Your task to perform on an android device: Open calendar and show me the third week of next month Image 0: 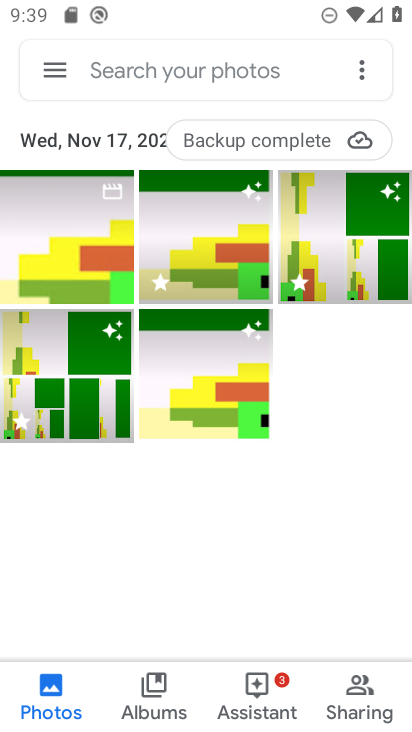
Step 0: press home button
Your task to perform on an android device: Open calendar and show me the third week of next month Image 1: 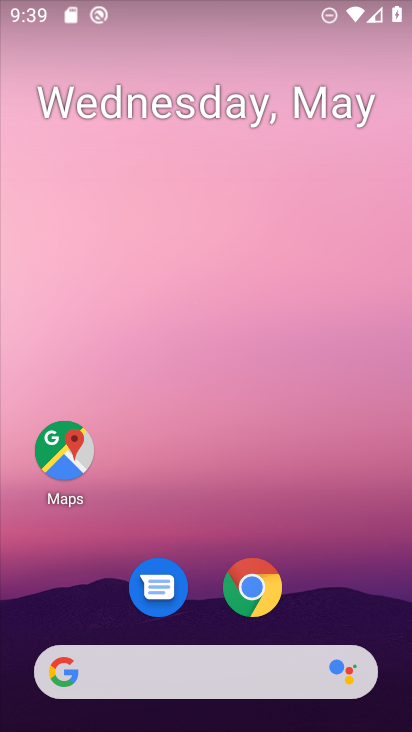
Step 1: drag from (189, 727) to (197, 141)
Your task to perform on an android device: Open calendar and show me the third week of next month Image 2: 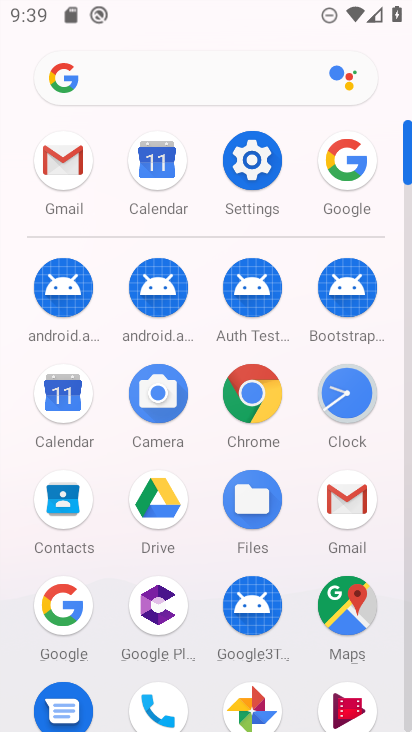
Step 2: click (56, 397)
Your task to perform on an android device: Open calendar and show me the third week of next month Image 3: 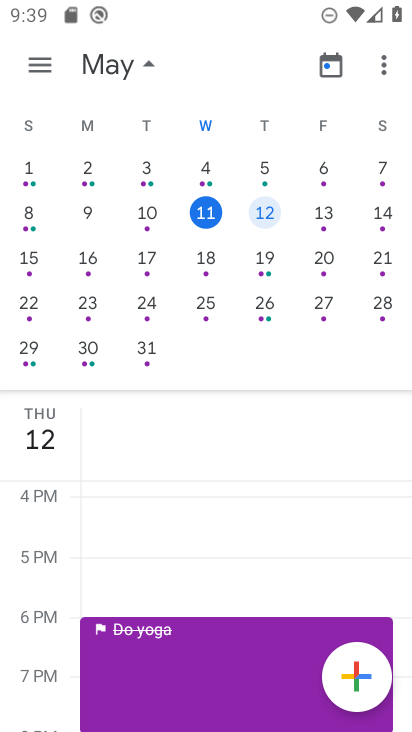
Step 3: drag from (341, 250) to (3, 216)
Your task to perform on an android device: Open calendar and show me the third week of next month Image 4: 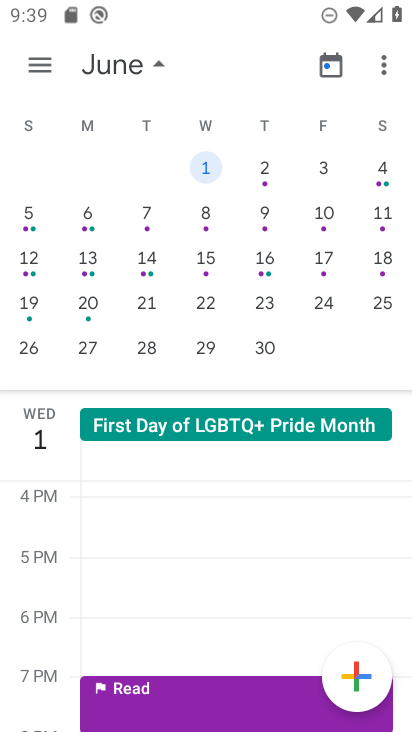
Step 4: click (89, 298)
Your task to perform on an android device: Open calendar and show me the third week of next month Image 5: 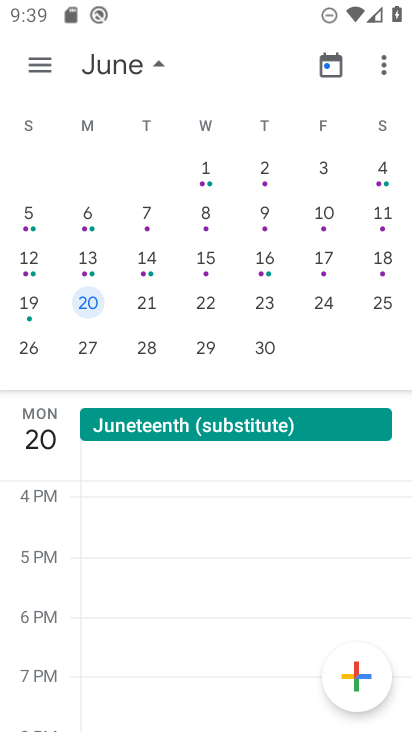
Step 5: click (36, 59)
Your task to perform on an android device: Open calendar and show me the third week of next month Image 6: 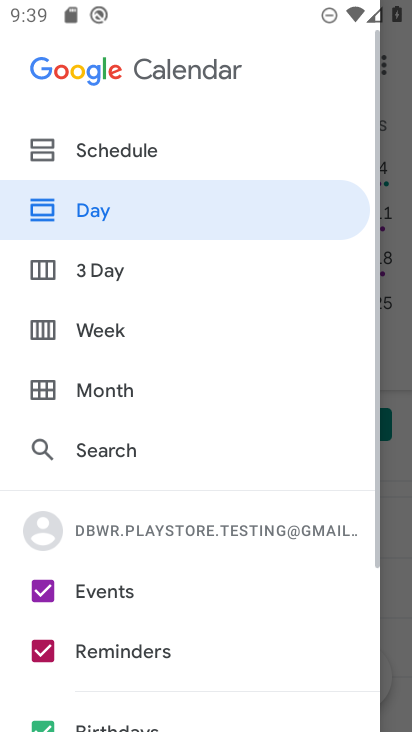
Step 6: click (85, 324)
Your task to perform on an android device: Open calendar and show me the third week of next month Image 7: 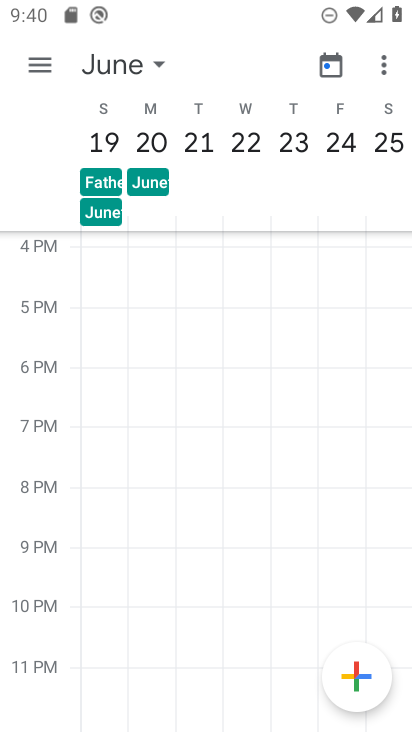
Step 7: task complete